Your task to perform on an android device: Go to sound settings Image 0: 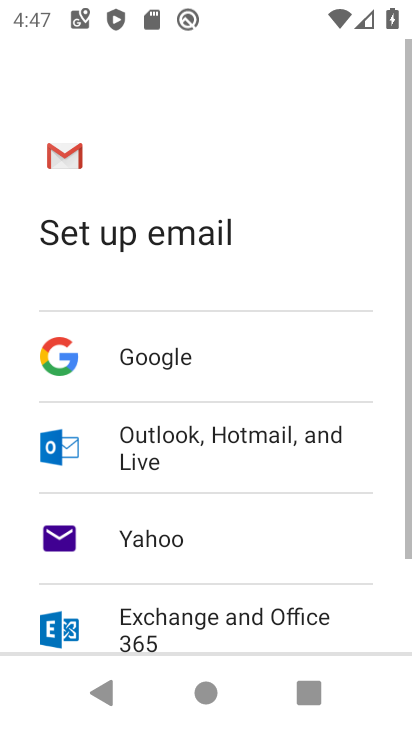
Step 0: press home button
Your task to perform on an android device: Go to sound settings Image 1: 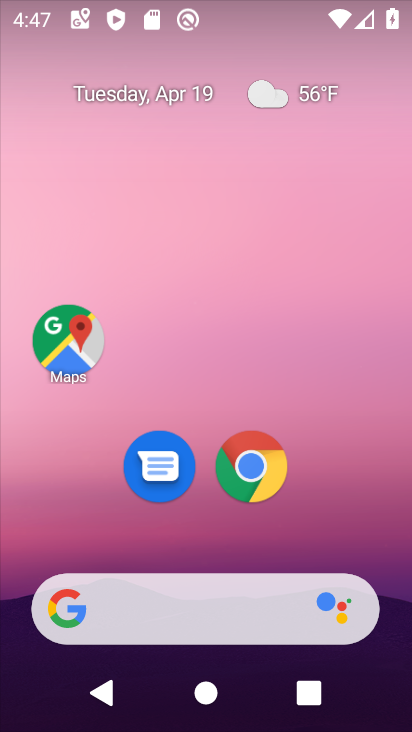
Step 1: drag from (205, 724) to (208, 97)
Your task to perform on an android device: Go to sound settings Image 2: 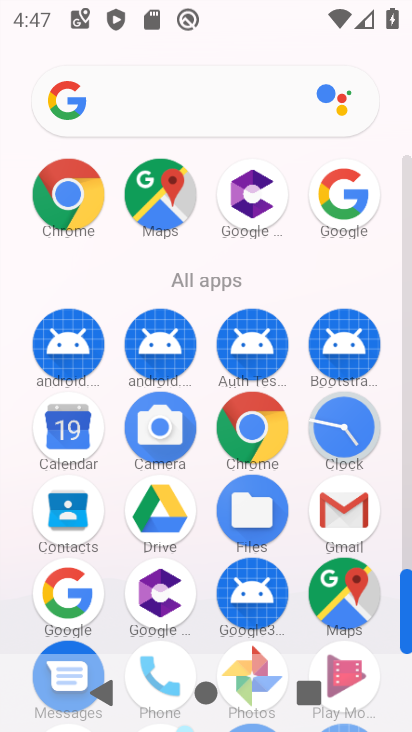
Step 2: drag from (204, 633) to (204, 173)
Your task to perform on an android device: Go to sound settings Image 3: 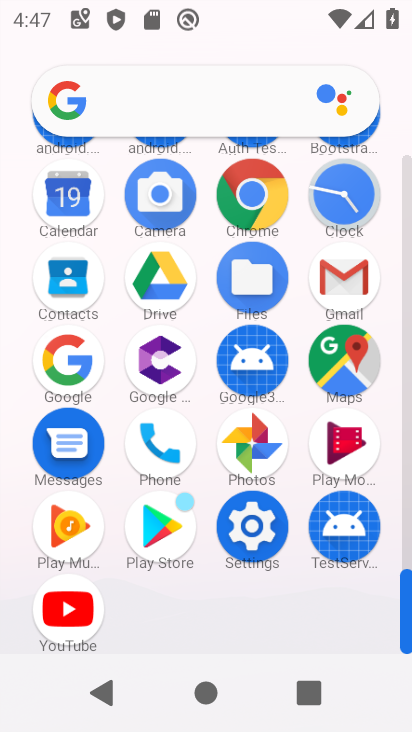
Step 3: click (258, 524)
Your task to perform on an android device: Go to sound settings Image 4: 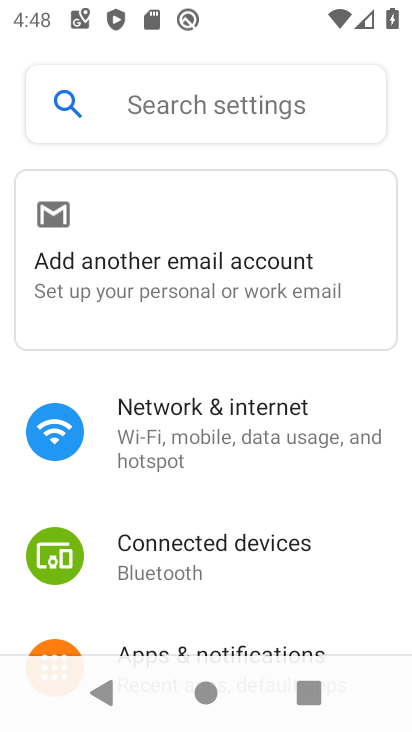
Step 4: drag from (216, 618) to (221, 116)
Your task to perform on an android device: Go to sound settings Image 5: 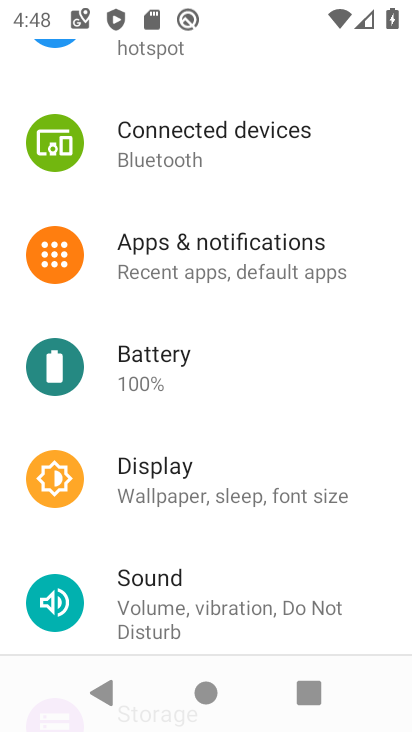
Step 5: click (148, 587)
Your task to perform on an android device: Go to sound settings Image 6: 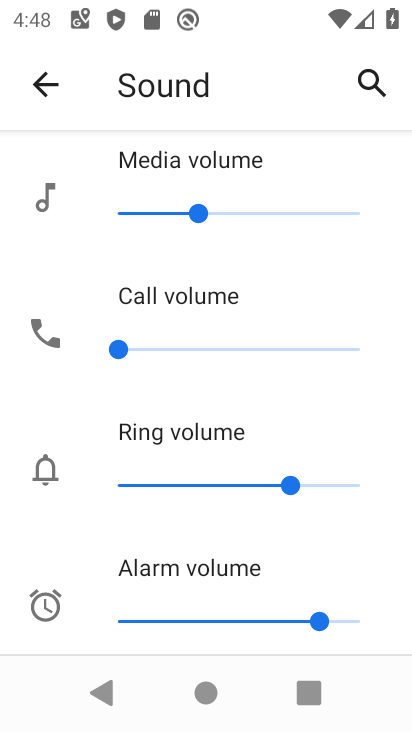
Step 6: task complete